Your task to perform on an android device: turn notification dots off Image 0: 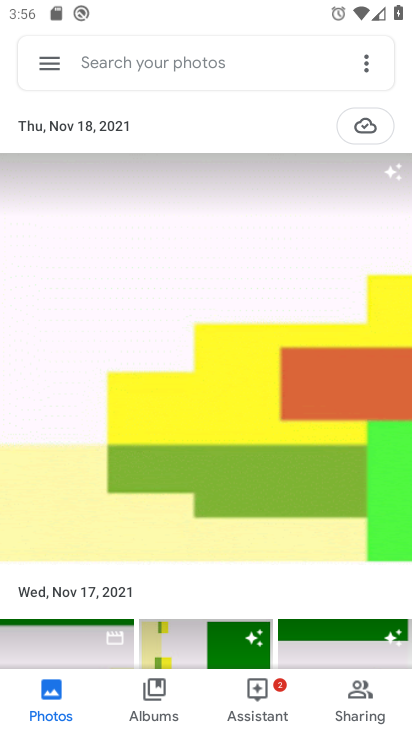
Step 0: press home button
Your task to perform on an android device: turn notification dots off Image 1: 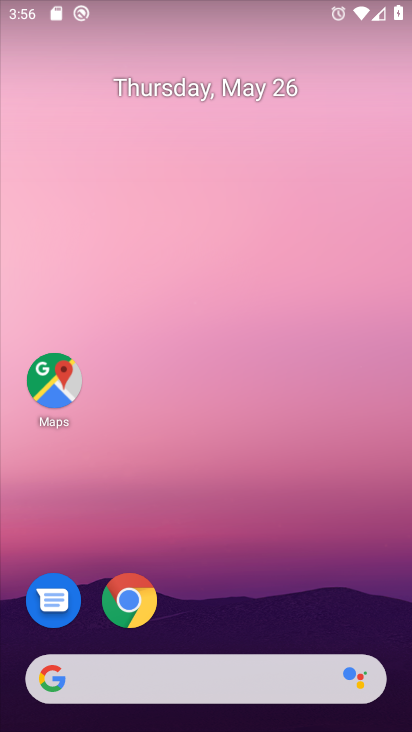
Step 1: drag from (224, 630) to (264, 145)
Your task to perform on an android device: turn notification dots off Image 2: 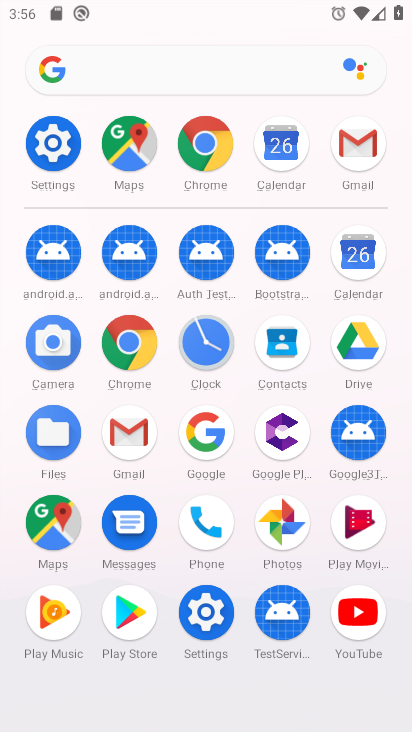
Step 2: click (56, 148)
Your task to perform on an android device: turn notification dots off Image 3: 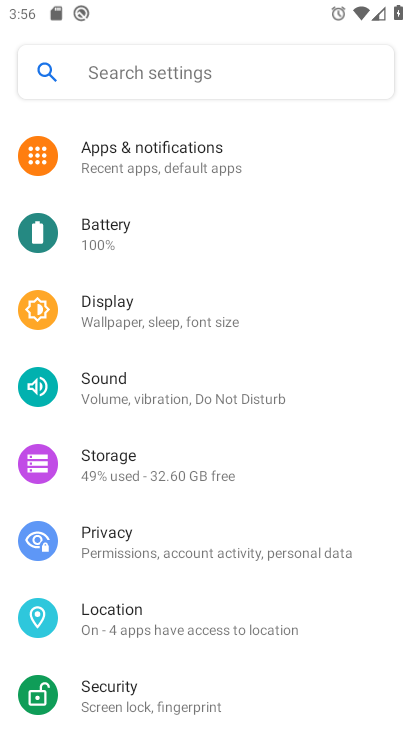
Step 3: click (188, 165)
Your task to perform on an android device: turn notification dots off Image 4: 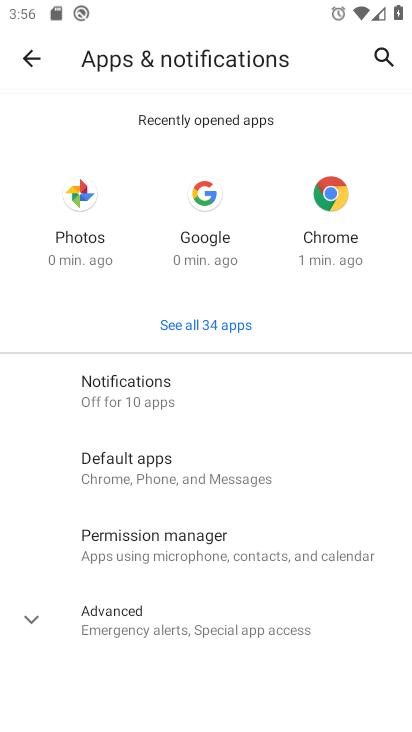
Step 4: click (147, 635)
Your task to perform on an android device: turn notification dots off Image 5: 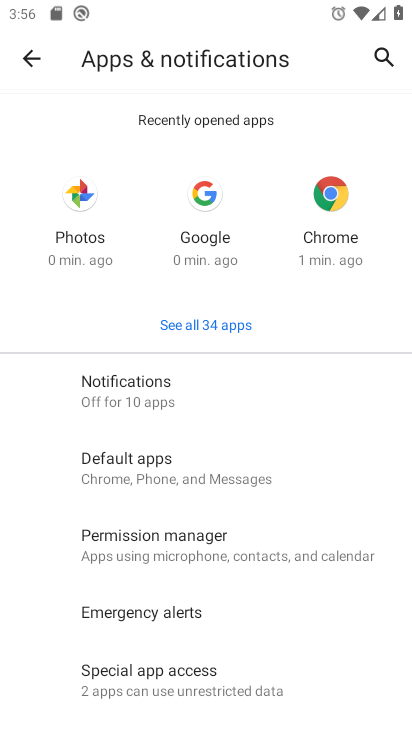
Step 5: click (136, 385)
Your task to perform on an android device: turn notification dots off Image 6: 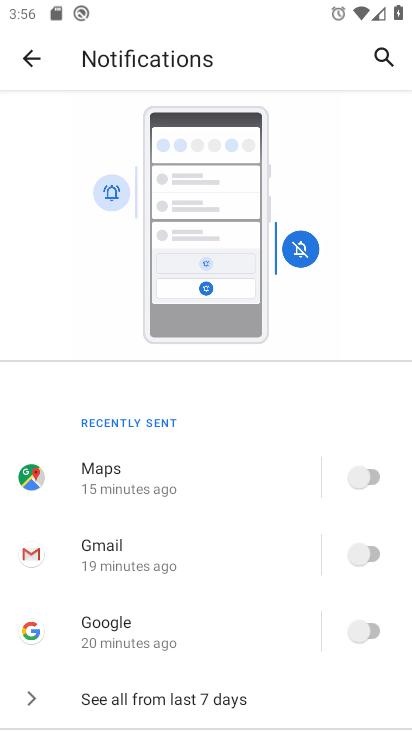
Step 6: drag from (234, 591) to (298, 230)
Your task to perform on an android device: turn notification dots off Image 7: 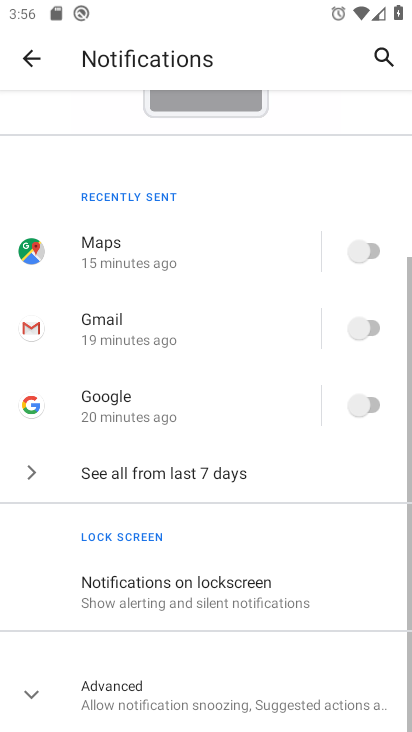
Step 7: drag from (187, 704) to (252, 274)
Your task to perform on an android device: turn notification dots off Image 8: 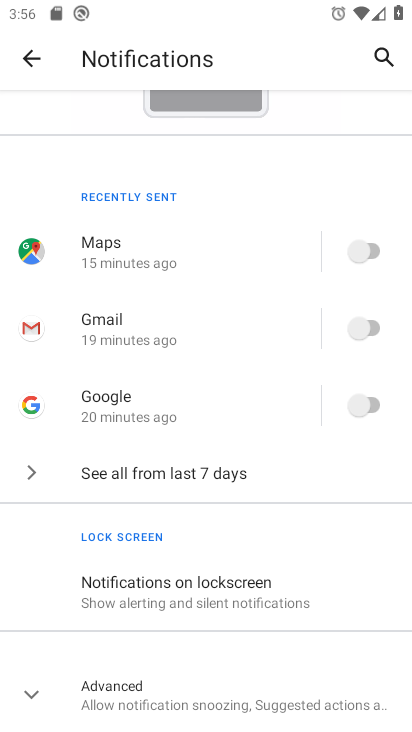
Step 8: click (122, 651)
Your task to perform on an android device: turn notification dots off Image 9: 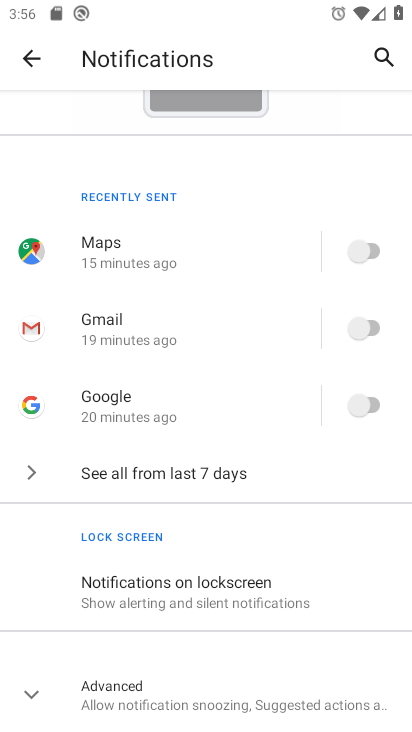
Step 9: click (110, 686)
Your task to perform on an android device: turn notification dots off Image 10: 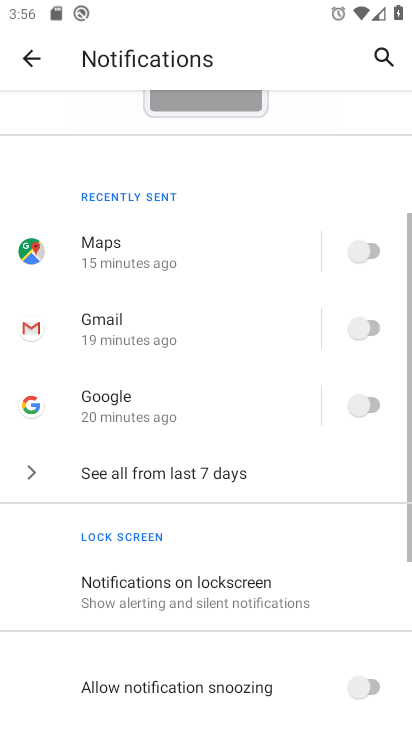
Step 10: drag from (152, 680) to (236, 340)
Your task to perform on an android device: turn notification dots off Image 11: 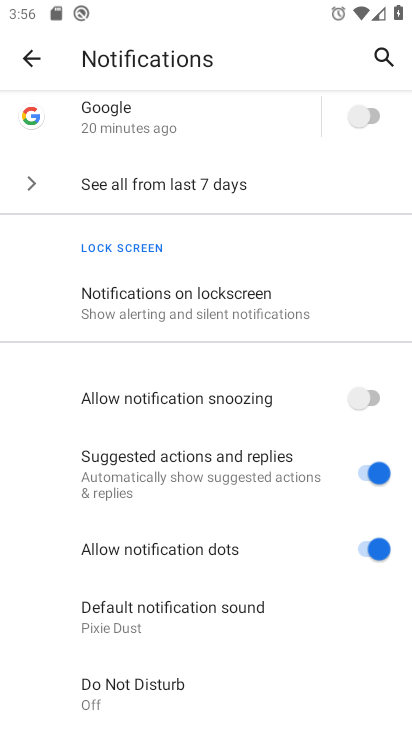
Step 11: click (363, 548)
Your task to perform on an android device: turn notification dots off Image 12: 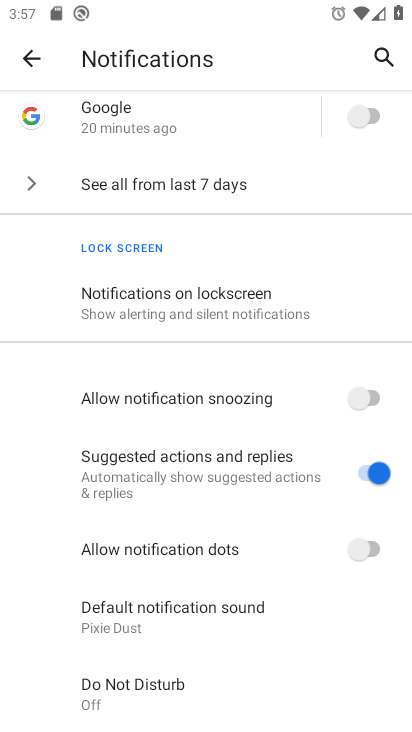
Step 12: task complete